Your task to perform on an android device: open app "Pinterest" (install if not already installed), go to login, and select forgot password Image 0: 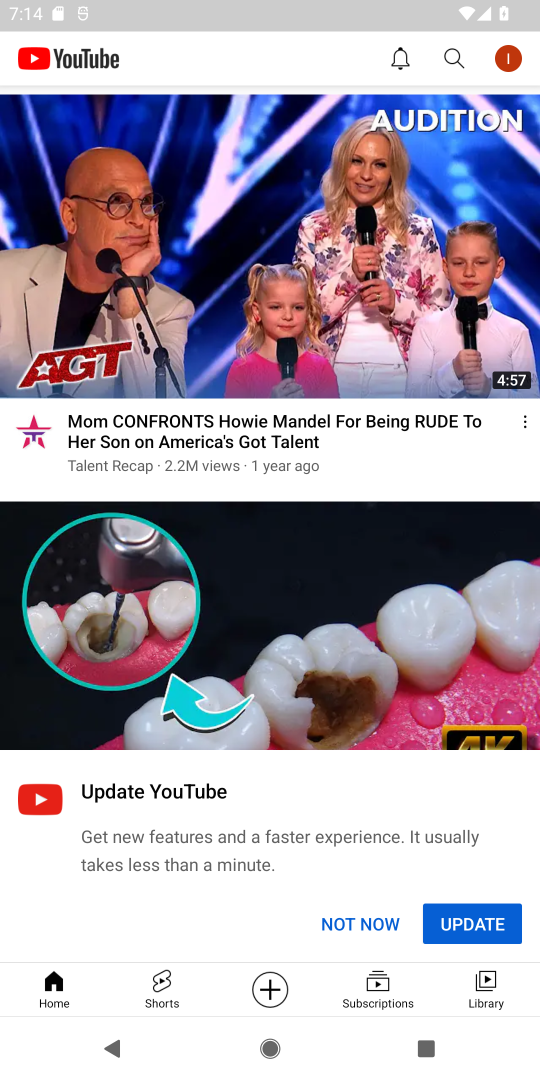
Step 0: press home button
Your task to perform on an android device: open app "Pinterest" (install if not already installed), go to login, and select forgot password Image 1: 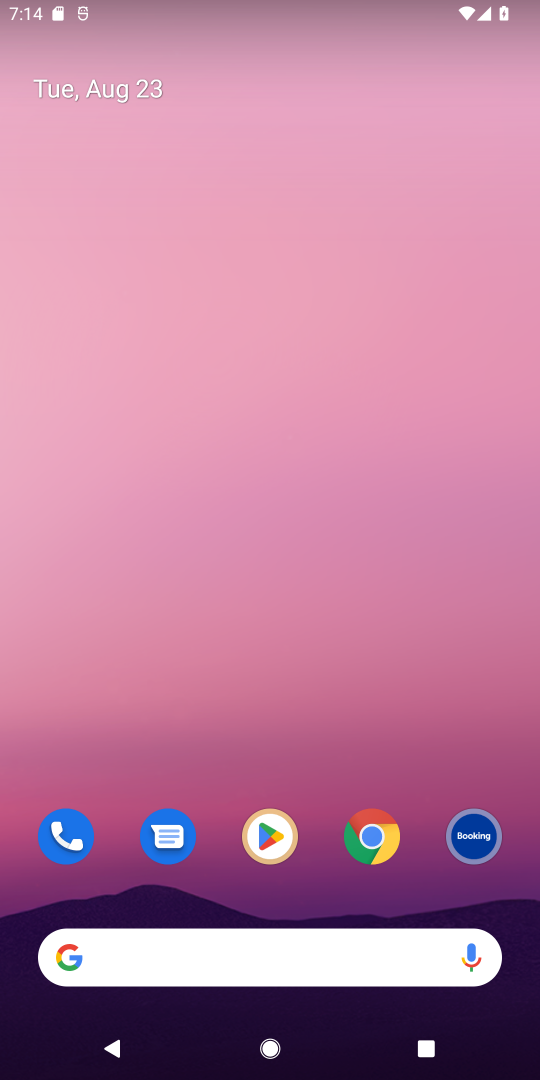
Step 1: click (269, 835)
Your task to perform on an android device: open app "Pinterest" (install if not already installed), go to login, and select forgot password Image 2: 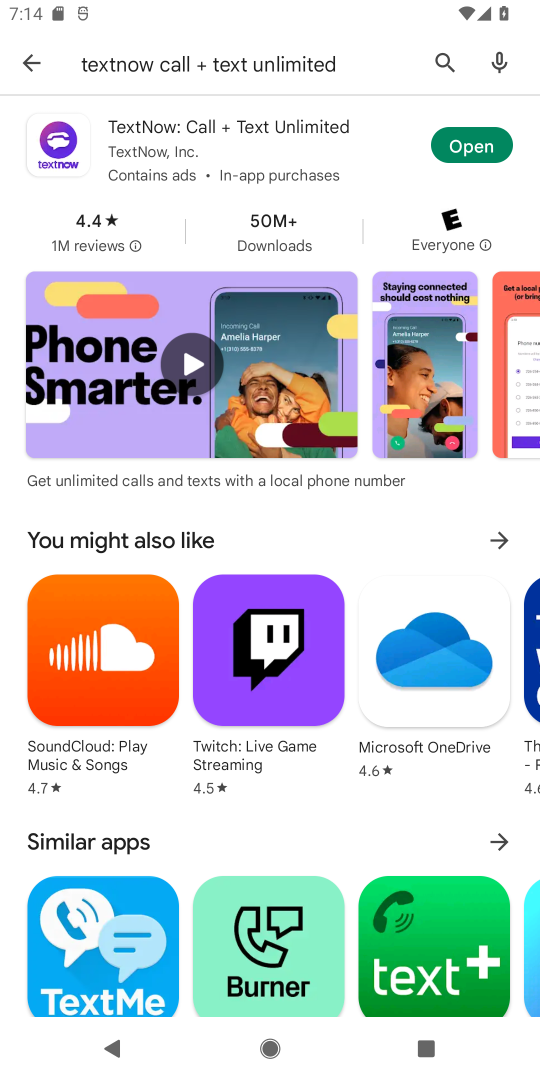
Step 2: click (446, 56)
Your task to perform on an android device: open app "Pinterest" (install if not already installed), go to login, and select forgot password Image 3: 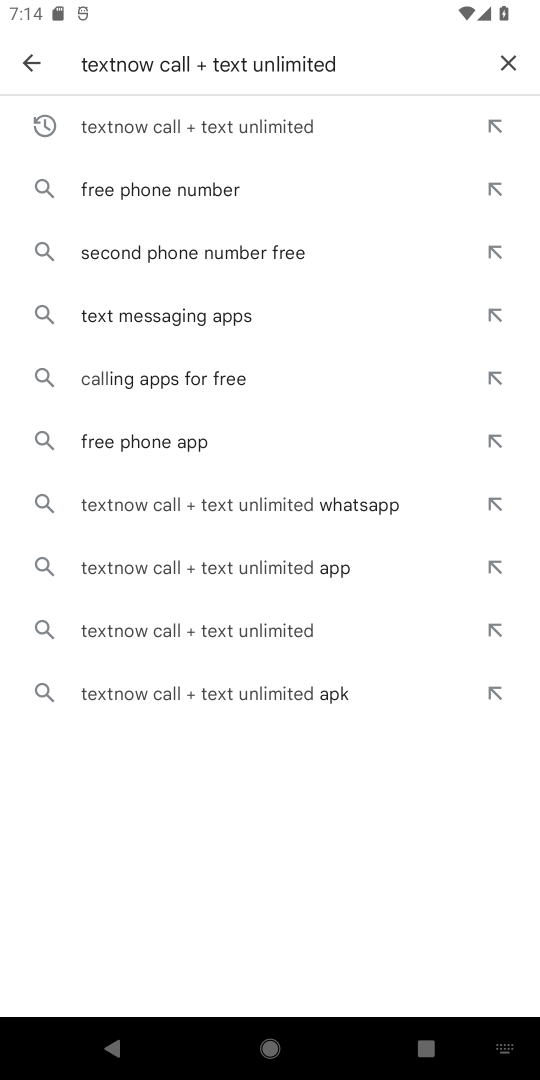
Step 3: click (513, 63)
Your task to perform on an android device: open app "Pinterest" (install if not already installed), go to login, and select forgot password Image 4: 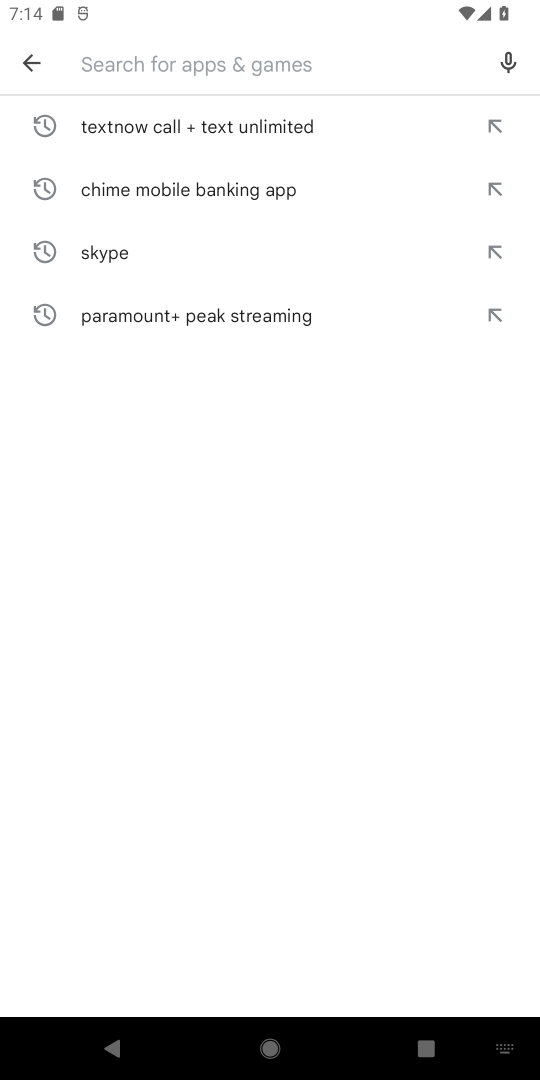
Step 4: type "Pinterest"
Your task to perform on an android device: open app "Pinterest" (install if not already installed), go to login, and select forgot password Image 5: 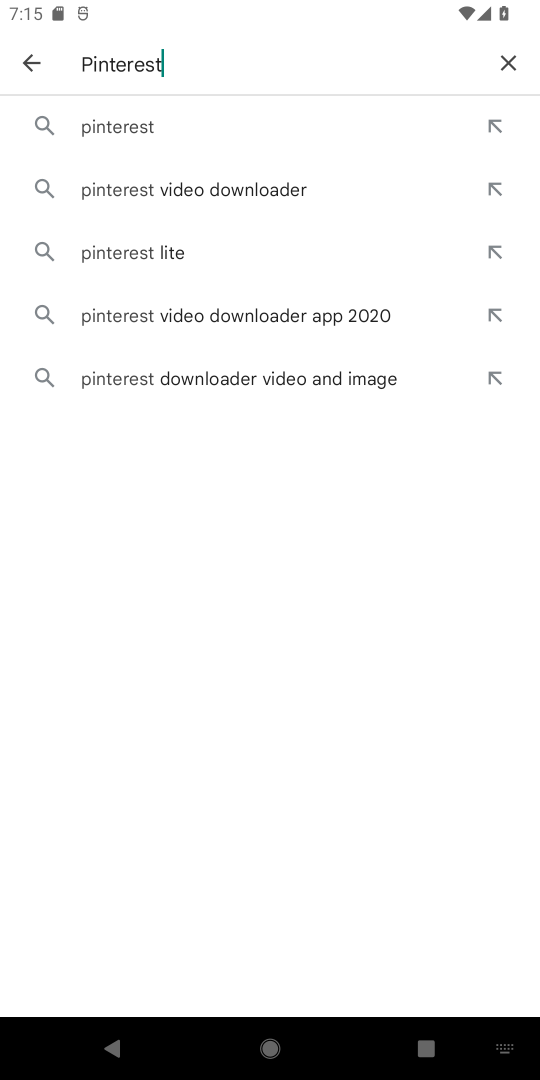
Step 5: click (144, 120)
Your task to perform on an android device: open app "Pinterest" (install if not already installed), go to login, and select forgot password Image 6: 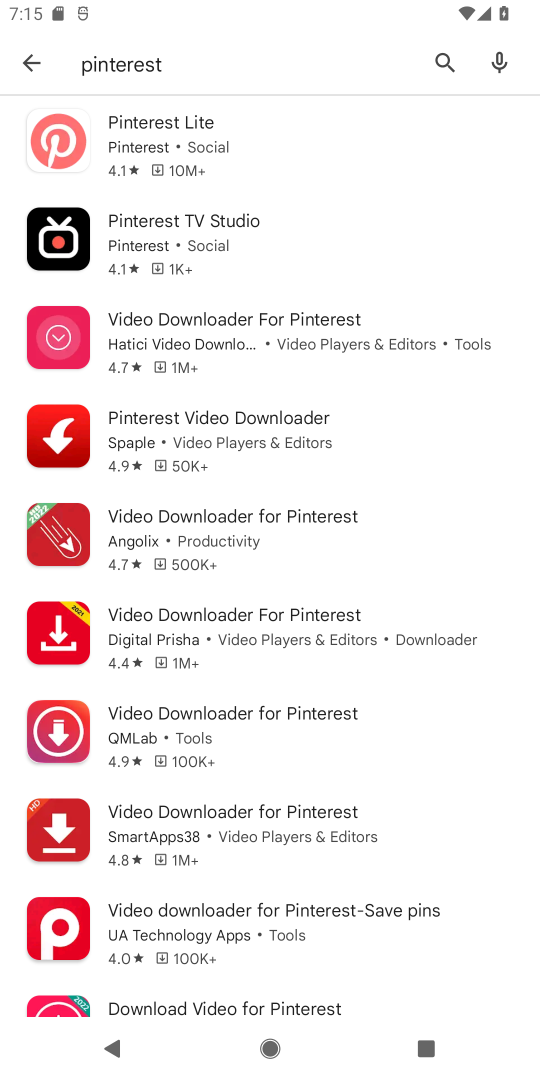
Step 6: click (144, 121)
Your task to perform on an android device: open app "Pinterest" (install if not already installed), go to login, and select forgot password Image 7: 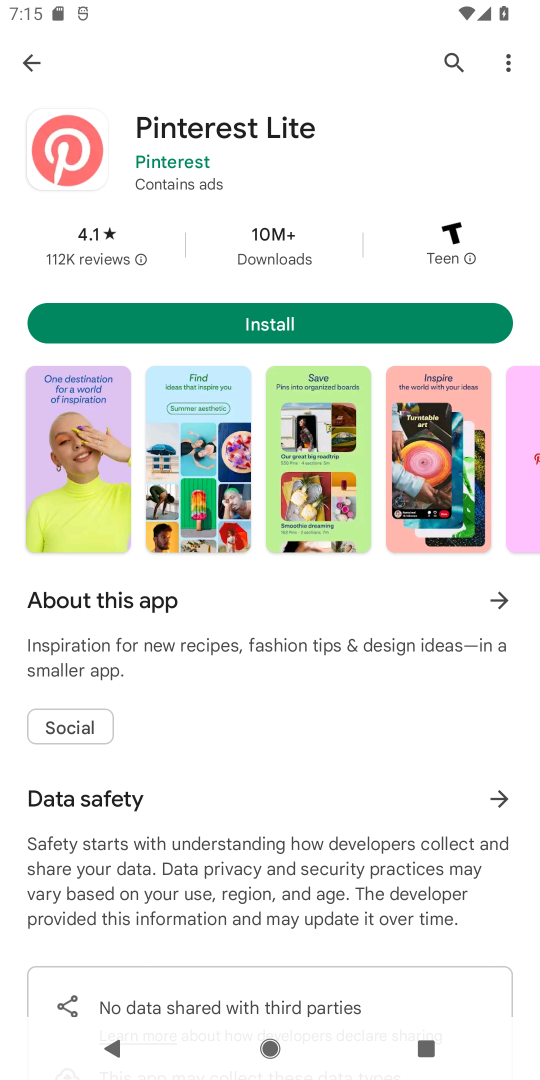
Step 7: click (299, 315)
Your task to perform on an android device: open app "Pinterest" (install if not already installed), go to login, and select forgot password Image 8: 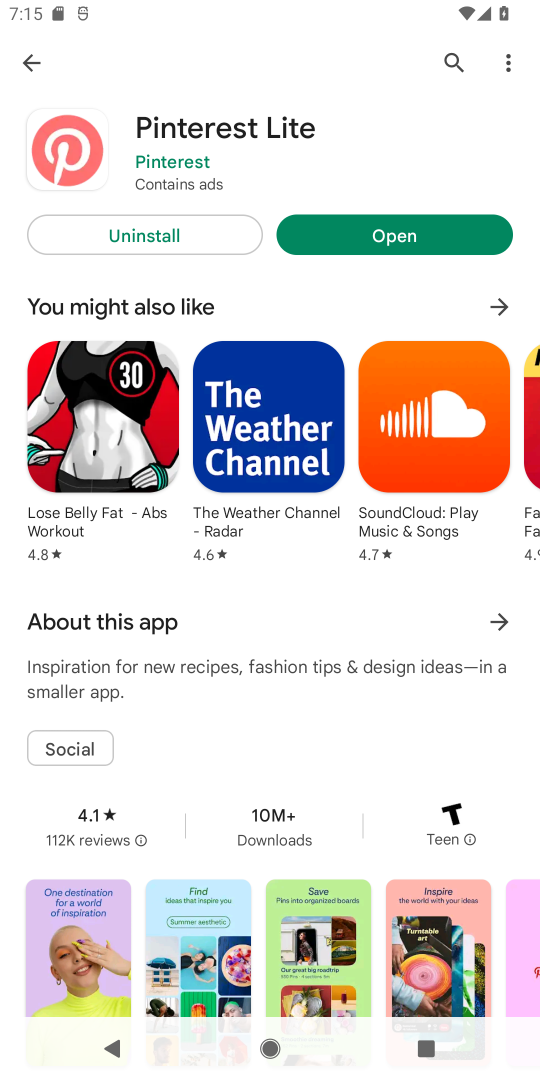
Step 8: click (422, 223)
Your task to perform on an android device: open app "Pinterest" (install if not already installed), go to login, and select forgot password Image 9: 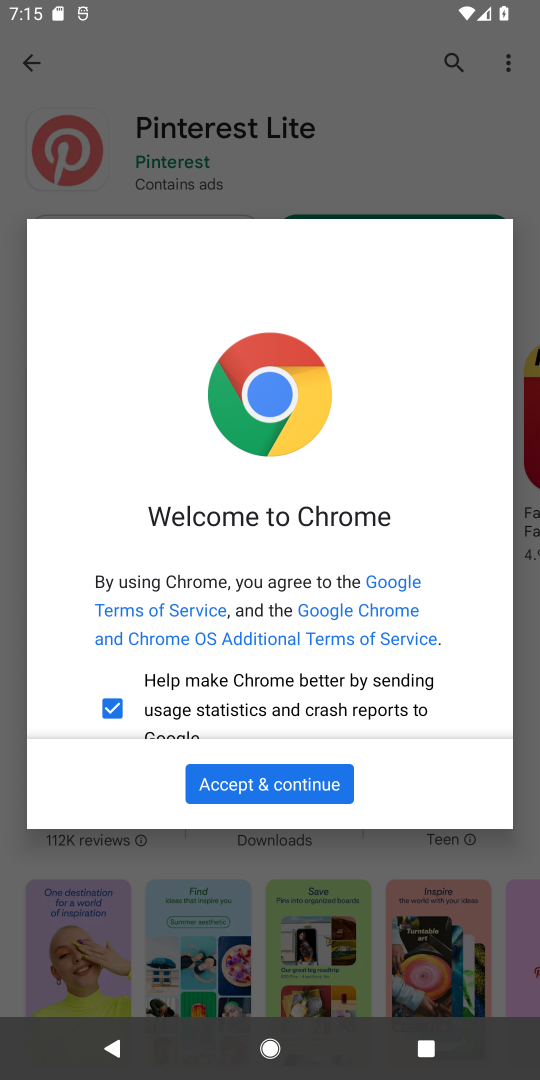
Step 9: task complete